Your task to perform on an android device: Open calendar and show me the fourth week of next month Image 0: 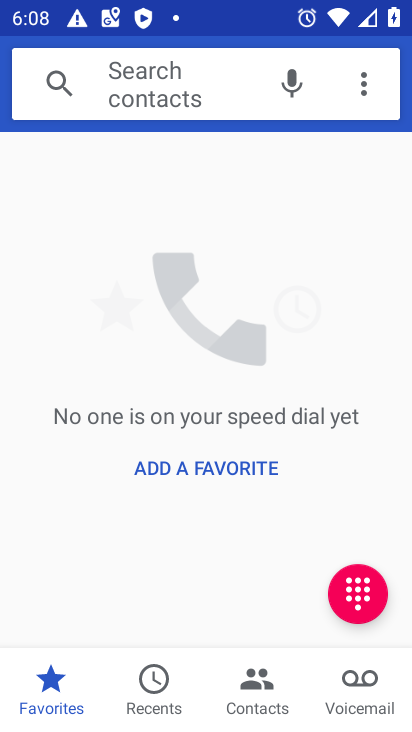
Step 0: press home button
Your task to perform on an android device: Open calendar and show me the fourth week of next month Image 1: 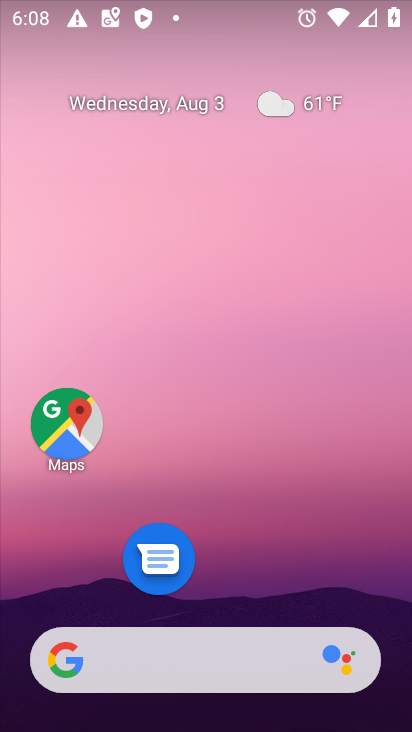
Step 1: drag from (196, 599) to (190, 96)
Your task to perform on an android device: Open calendar and show me the fourth week of next month Image 2: 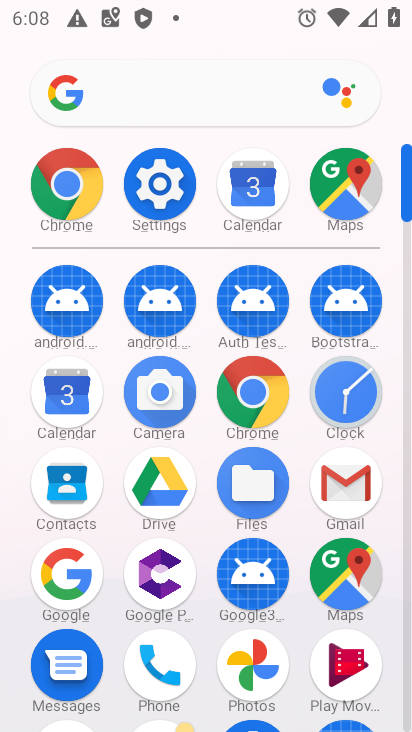
Step 2: click (255, 189)
Your task to perform on an android device: Open calendar and show me the fourth week of next month Image 3: 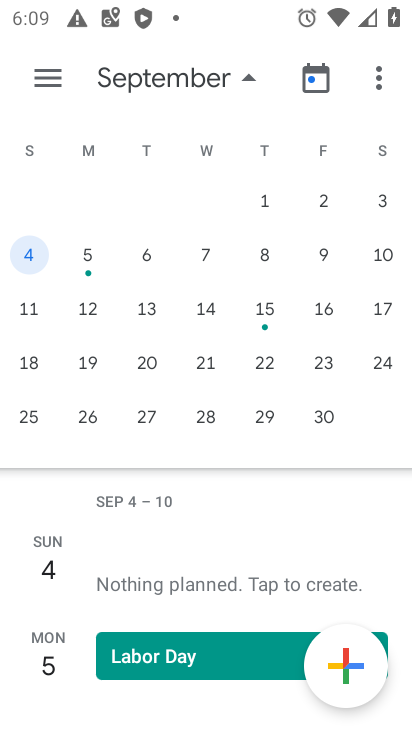
Step 3: click (32, 362)
Your task to perform on an android device: Open calendar and show me the fourth week of next month Image 4: 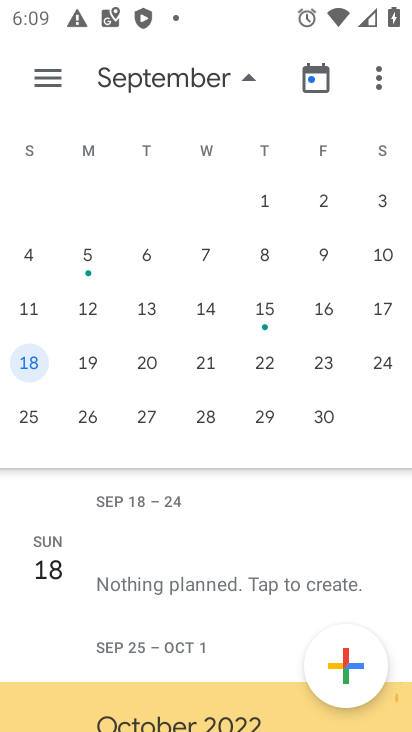
Step 4: task complete